Your task to perform on an android device: turn on notifications settings in the gmail app Image 0: 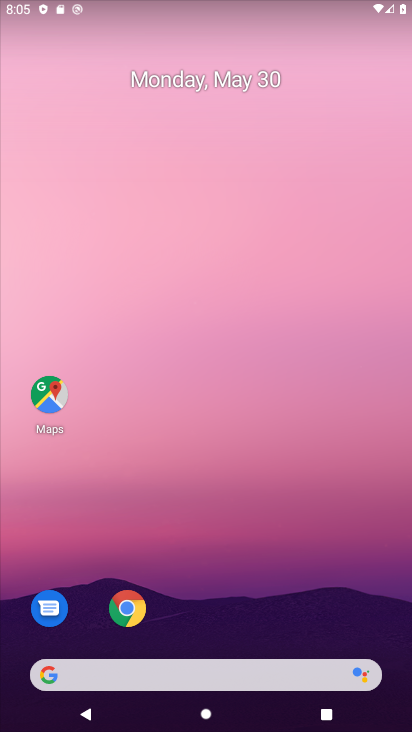
Step 0: drag from (394, 641) to (325, 290)
Your task to perform on an android device: turn on notifications settings in the gmail app Image 1: 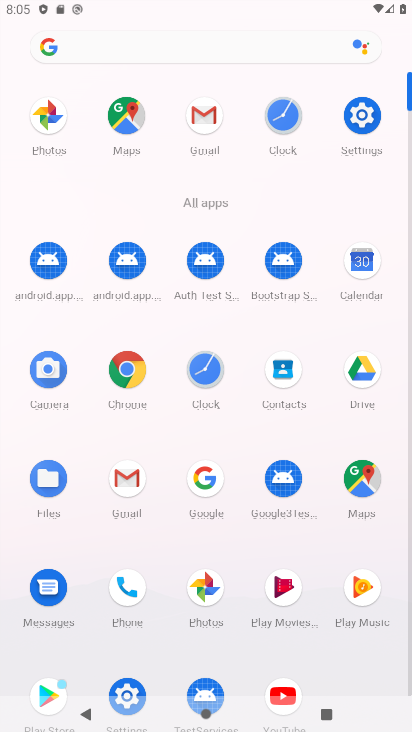
Step 1: click (209, 125)
Your task to perform on an android device: turn on notifications settings in the gmail app Image 2: 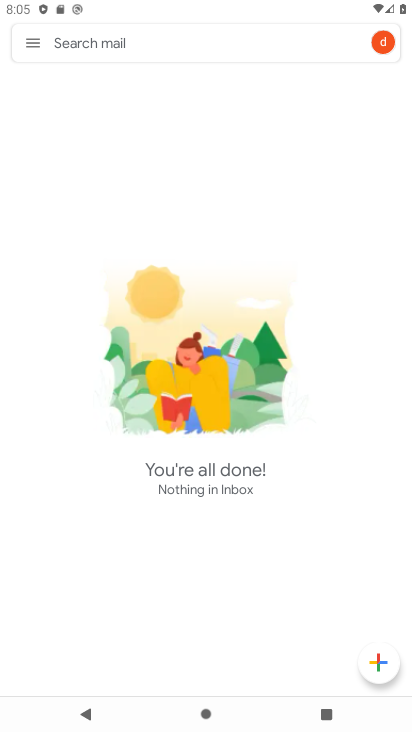
Step 2: click (30, 39)
Your task to perform on an android device: turn on notifications settings in the gmail app Image 3: 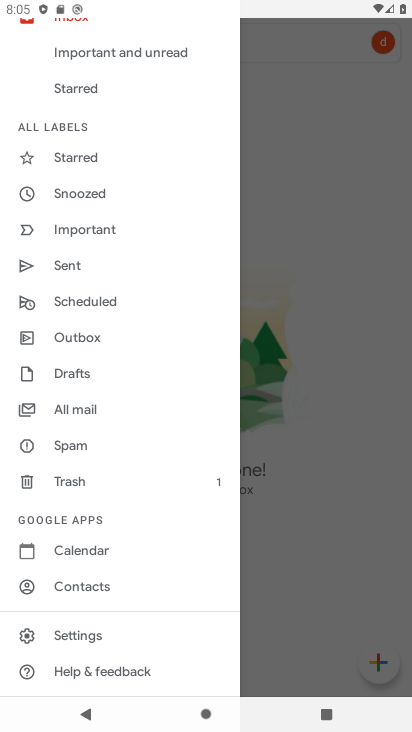
Step 3: click (76, 633)
Your task to perform on an android device: turn on notifications settings in the gmail app Image 4: 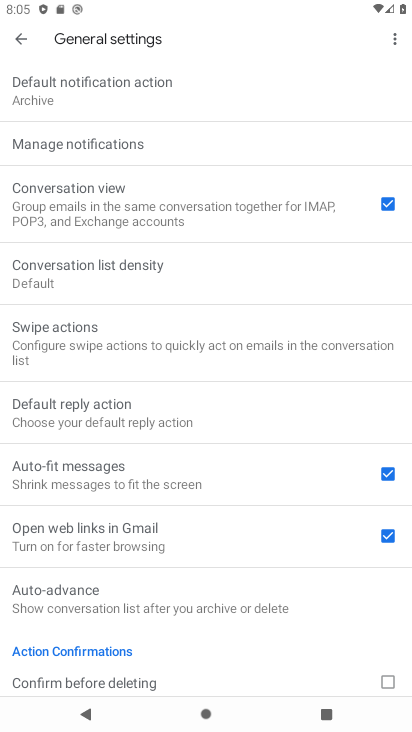
Step 4: click (66, 140)
Your task to perform on an android device: turn on notifications settings in the gmail app Image 5: 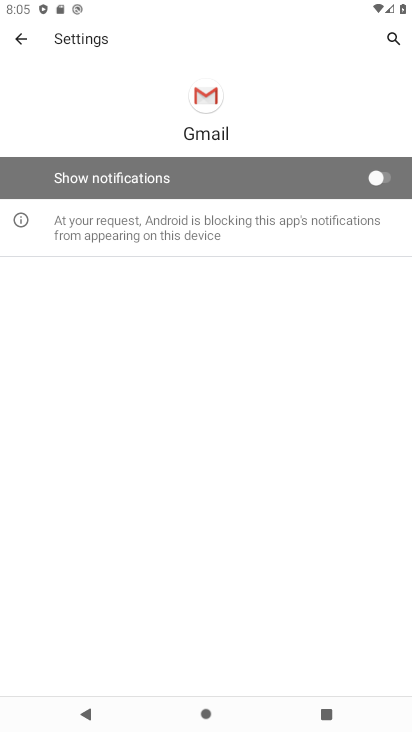
Step 5: click (387, 179)
Your task to perform on an android device: turn on notifications settings in the gmail app Image 6: 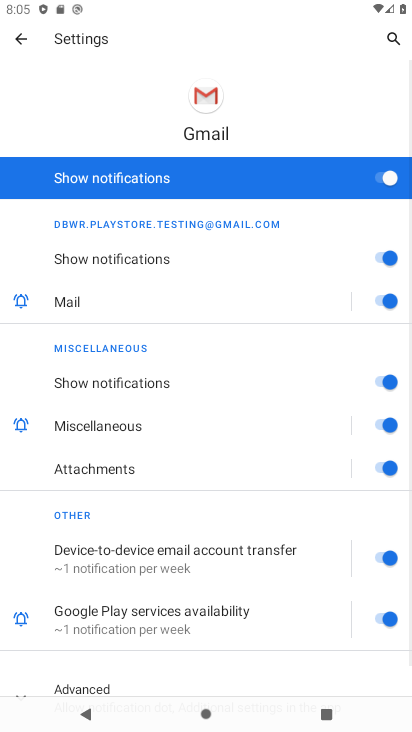
Step 6: task complete